Your task to perform on an android device: Search for top rated sushi restaurant Image 0: 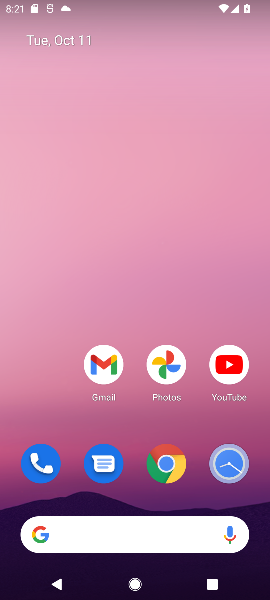
Step 0: drag from (142, 490) to (142, 151)
Your task to perform on an android device: Search for top rated sushi restaurant Image 1: 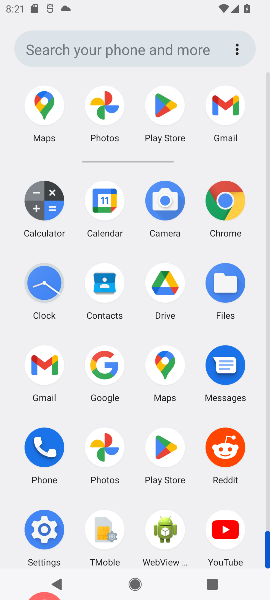
Step 1: click (34, 369)
Your task to perform on an android device: Search for top rated sushi restaurant Image 2: 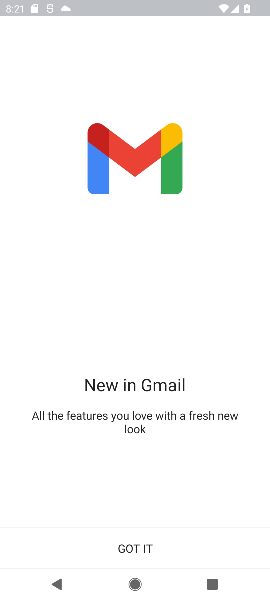
Step 2: press home button
Your task to perform on an android device: Search for top rated sushi restaurant Image 3: 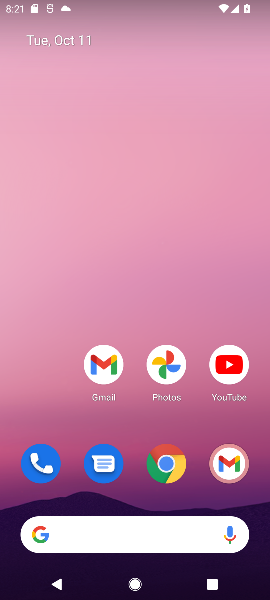
Step 3: press home button
Your task to perform on an android device: Search for top rated sushi restaurant Image 4: 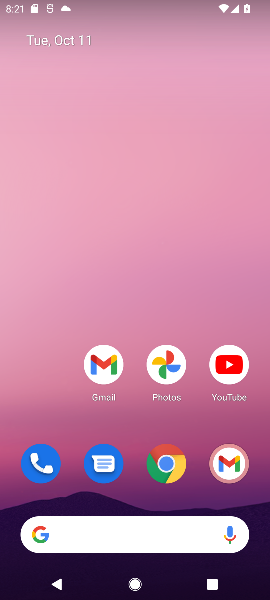
Step 4: drag from (112, 473) to (118, 123)
Your task to perform on an android device: Search for top rated sushi restaurant Image 5: 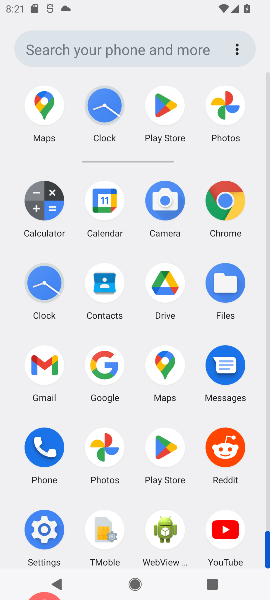
Step 5: click (103, 356)
Your task to perform on an android device: Search for top rated sushi restaurant Image 6: 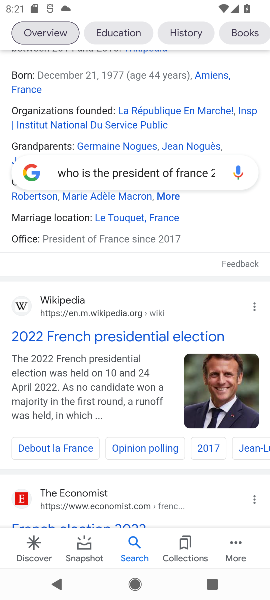
Step 6: drag from (85, 361) to (72, 501)
Your task to perform on an android device: Search for top rated sushi restaurant Image 7: 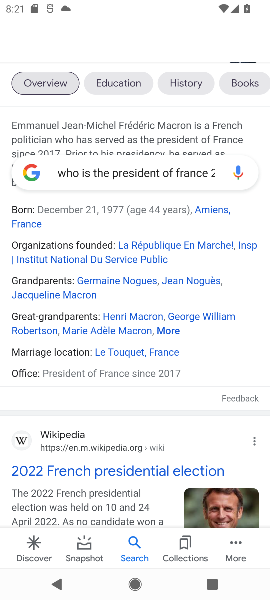
Step 7: click (115, 170)
Your task to perform on an android device: Search for top rated sushi restaurant Image 8: 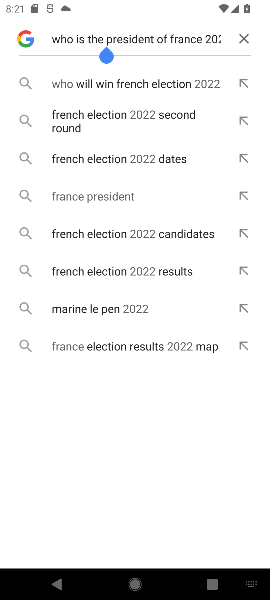
Step 8: click (247, 30)
Your task to perform on an android device: Search for top rated sushi restaurant Image 9: 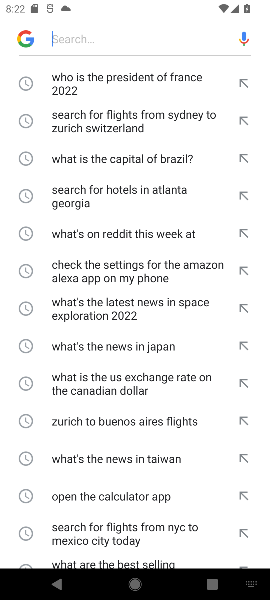
Step 9: click (160, 28)
Your task to perform on an android device: Search for top rated sushi restaurant Image 10: 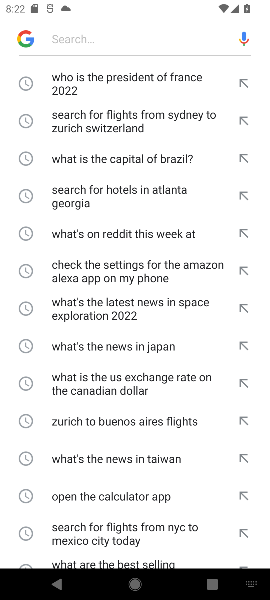
Step 10: type "Search for top rated sushi restaurant "
Your task to perform on an android device: Search for top rated sushi restaurant Image 11: 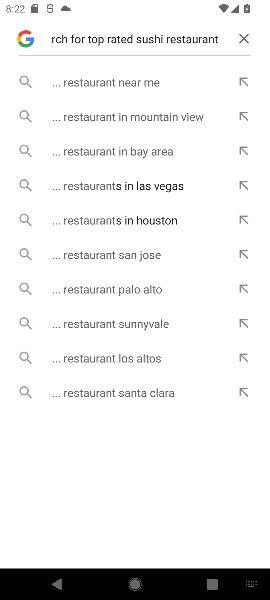
Step 11: click (119, 79)
Your task to perform on an android device: Search for top rated sushi restaurant Image 12: 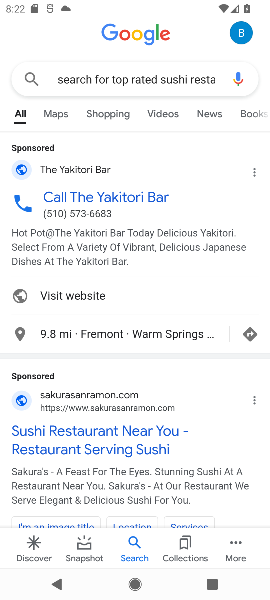
Step 12: click (114, 429)
Your task to perform on an android device: Search for top rated sushi restaurant Image 13: 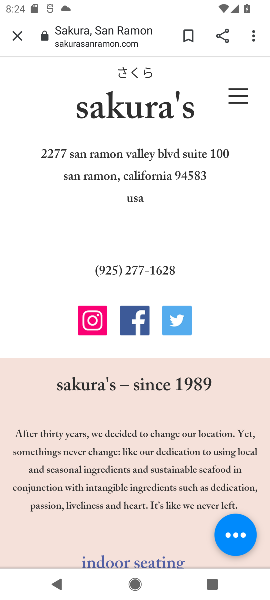
Step 13: task complete